Your task to perform on an android device: turn off translation in the chrome app Image 0: 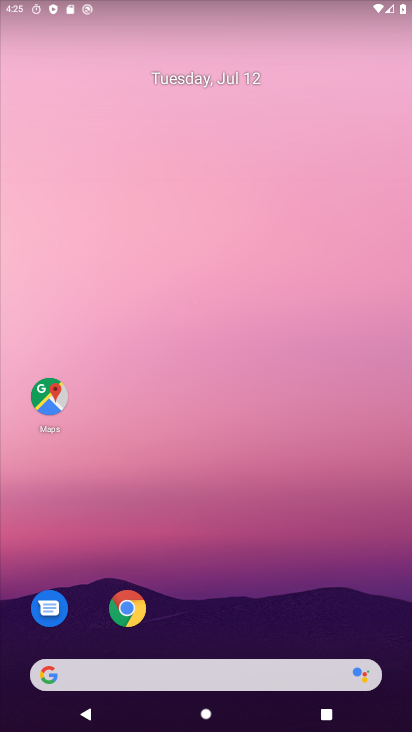
Step 0: click (131, 613)
Your task to perform on an android device: turn off translation in the chrome app Image 1: 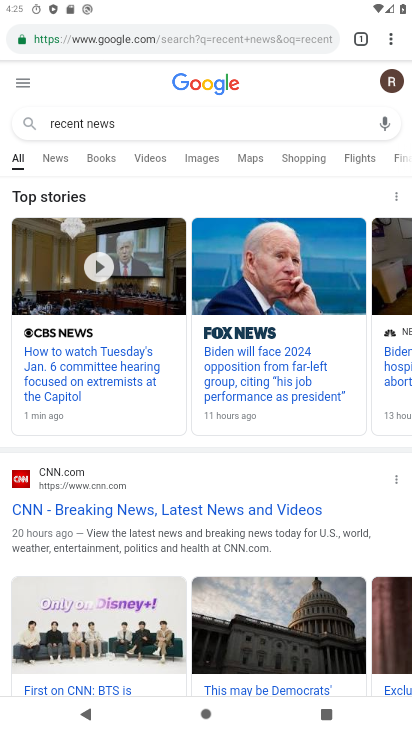
Step 1: click (387, 44)
Your task to perform on an android device: turn off translation in the chrome app Image 2: 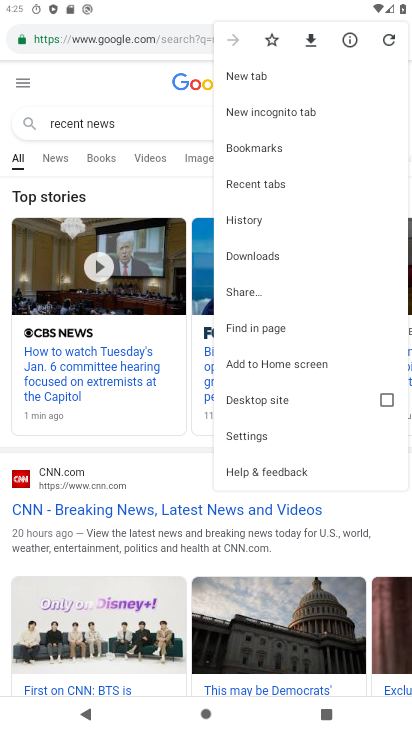
Step 2: click (275, 438)
Your task to perform on an android device: turn off translation in the chrome app Image 3: 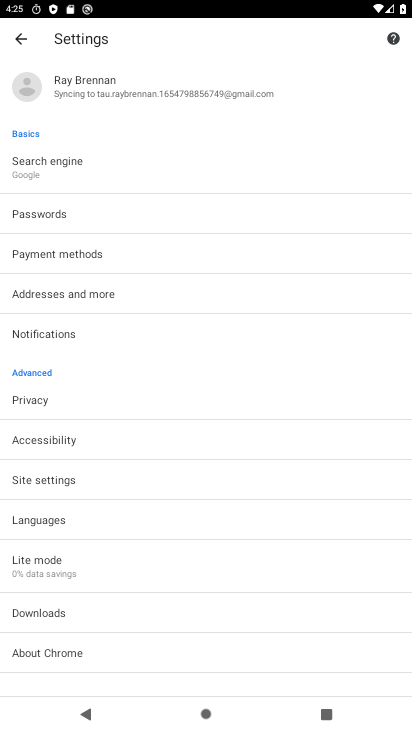
Step 3: click (111, 521)
Your task to perform on an android device: turn off translation in the chrome app Image 4: 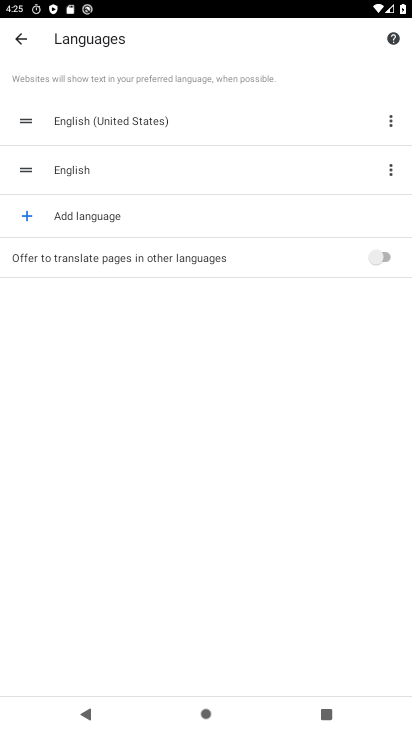
Step 4: task complete